Your task to perform on an android device: Open calendar and show me the first week of next month Image 0: 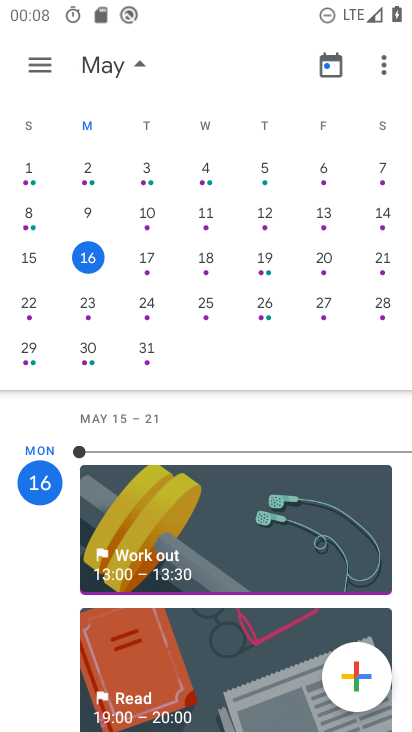
Step 0: press home button
Your task to perform on an android device: Open calendar and show me the first week of next month Image 1: 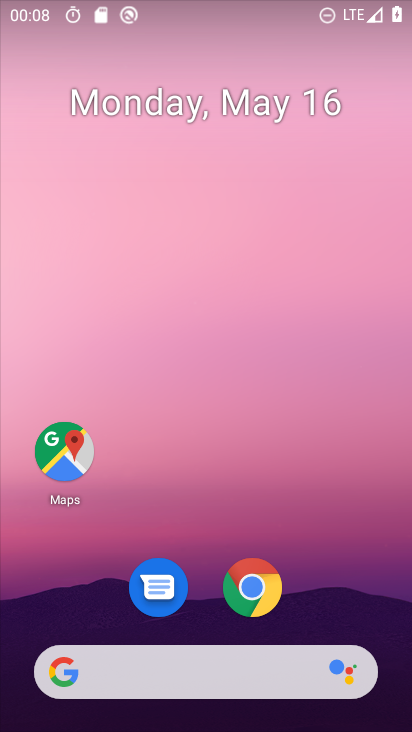
Step 1: drag from (221, 612) to (228, 285)
Your task to perform on an android device: Open calendar and show me the first week of next month Image 2: 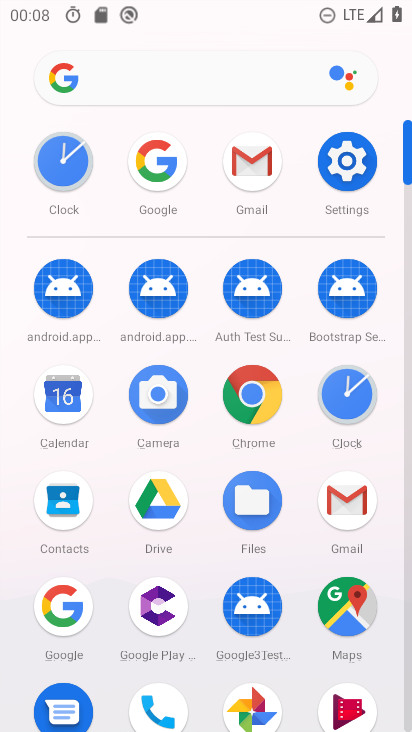
Step 2: click (76, 374)
Your task to perform on an android device: Open calendar and show me the first week of next month Image 3: 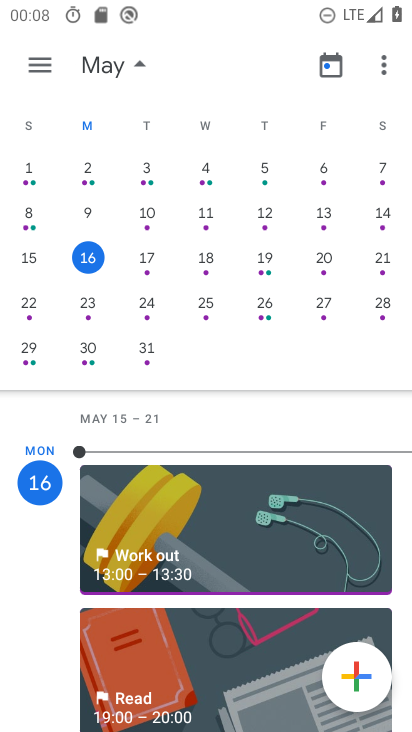
Step 3: drag from (310, 246) to (65, 212)
Your task to perform on an android device: Open calendar and show me the first week of next month Image 4: 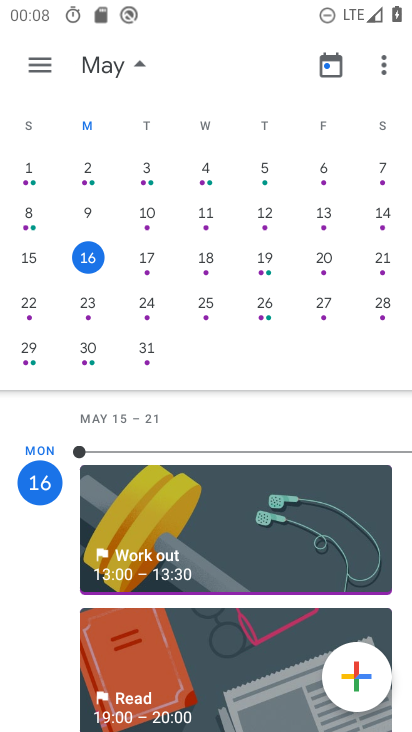
Step 4: drag from (357, 233) to (0, 224)
Your task to perform on an android device: Open calendar and show me the first week of next month Image 5: 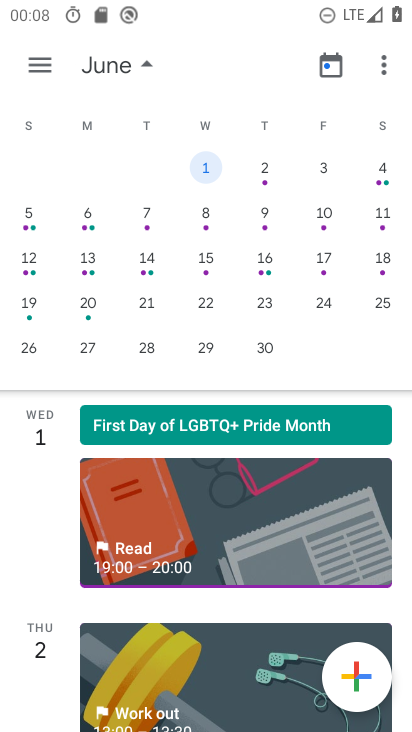
Step 5: click (213, 173)
Your task to perform on an android device: Open calendar and show me the first week of next month Image 6: 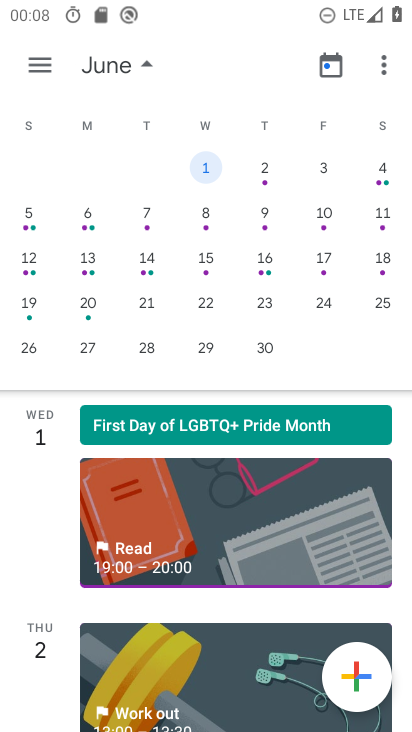
Step 6: click (270, 166)
Your task to perform on an android device: Open calendar and show me the first week of next month Image 7: 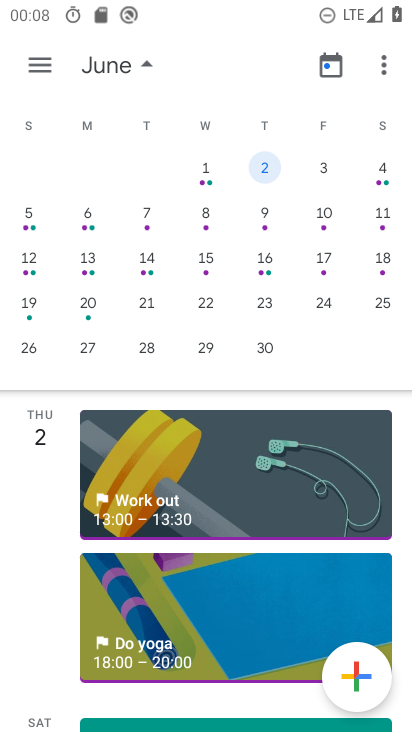
Step 7: click (306, 163)
Your task to perform on an android device: Open calendar and show me the first week of next month Image 8: 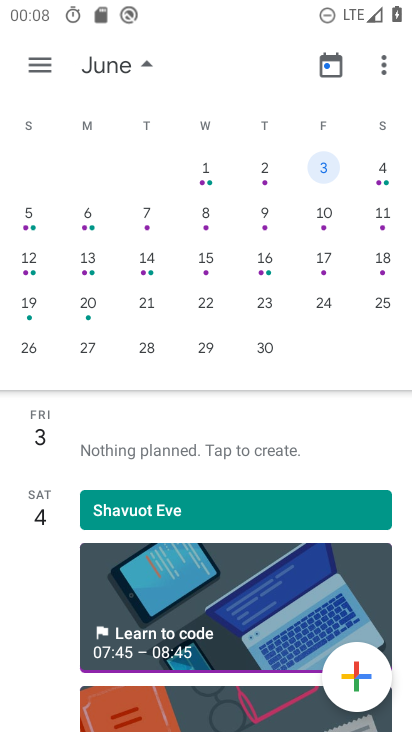
Step 8: click (328, 172)
Your task to perform on an android device: Open calendar and show me the first week of next month Image 9: 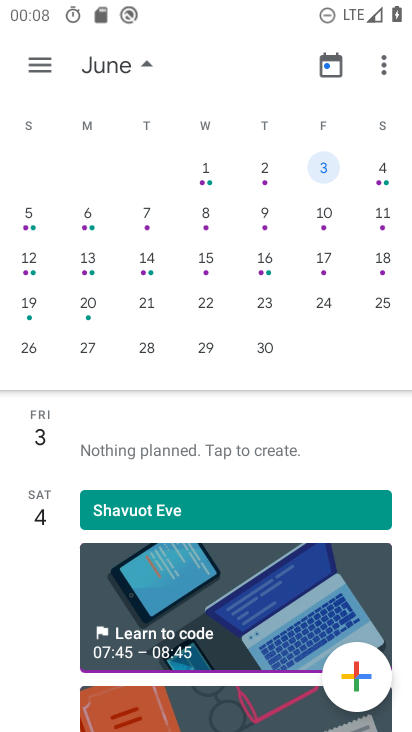
Step 9: click (367, 168)
Your task to perform on an android device: Open calendar and show me the first week of next month Image 10: 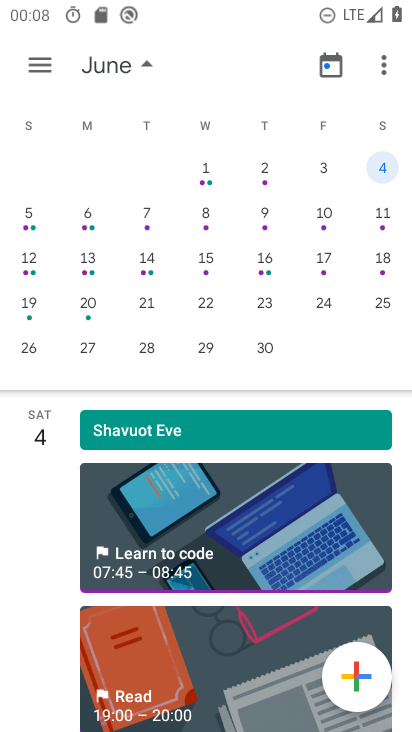
Step 10: task complete